Your task to perform on an android device: turn pop-ups off in chrome Image 0: 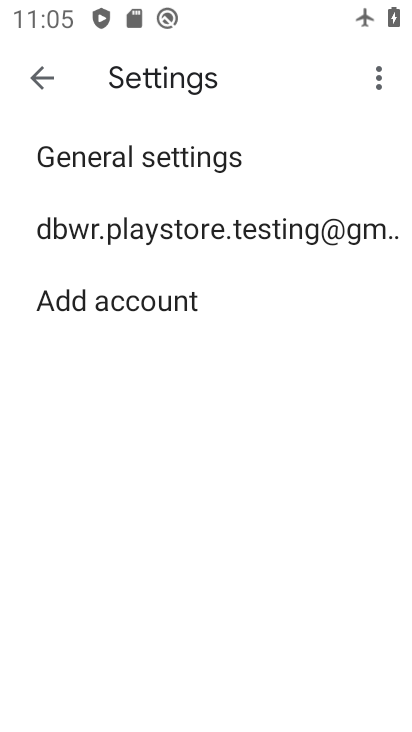
Step 0: press back button
Your task to perform on an android device: turn pop-ups off in chrome Image 1: 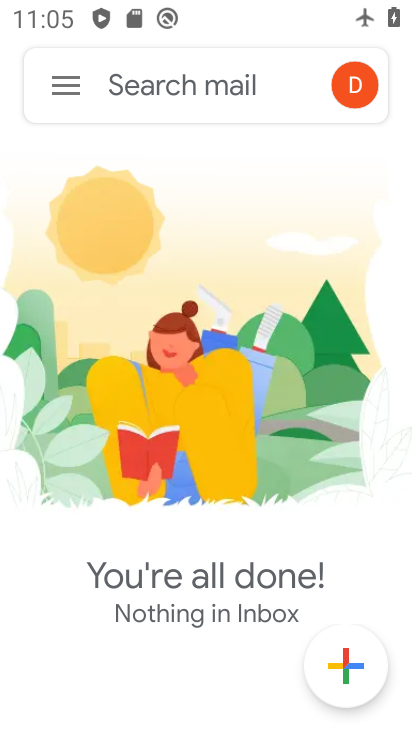
Step 1: press home button
Your task to perform on an android device: turn pop-ups off in chrome Image 2: 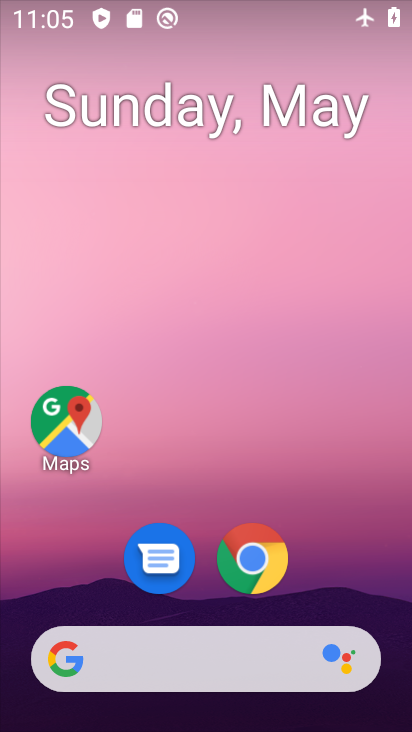
Step 2: drag from (385, 600) to (361, 130)
Your task to perform on an android device: turn pop-ups off in chrome Image 3: 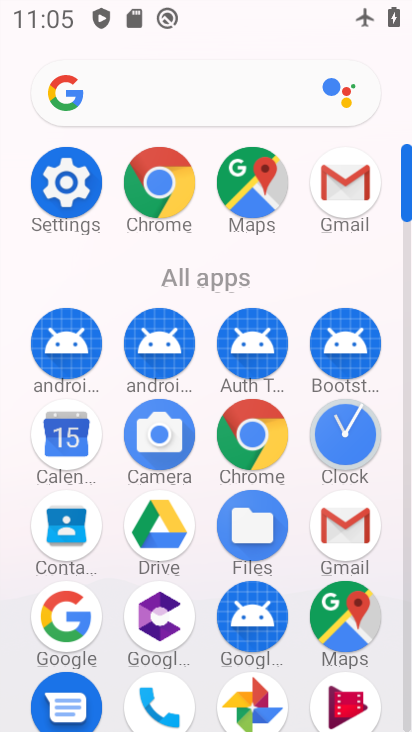
Step 3: click (155, 197)
Your task to perform on an android device: turn pop-ups off in chrome Image 4: 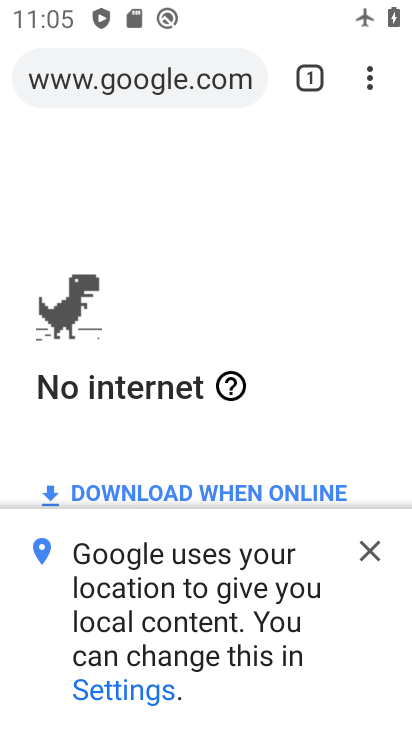
Step 4: click (369, 85)
Your task to perform on an android device: turn pop-ups off in chrome Image 5: 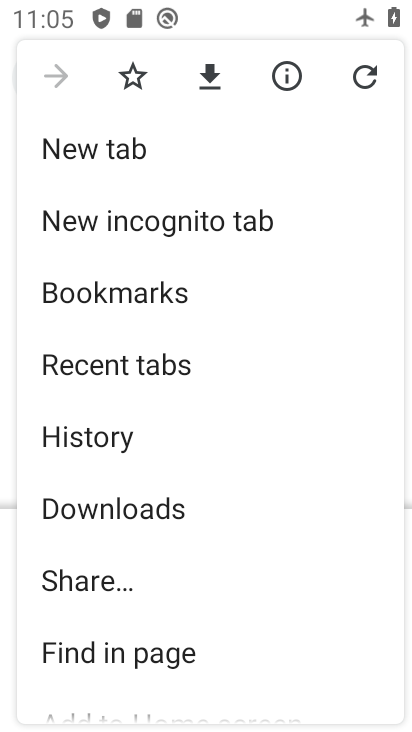
Step 5: drag from (344, 588) to (347, 478)
Your task to perform on an android device: turn pop-ups off in chrome Image 6: 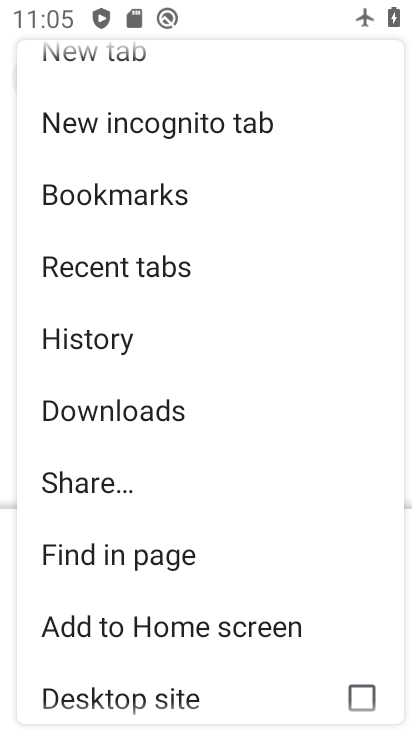
Step 6: drag from (347, 606) to (344, 427)
Your task to perform on an android device: turn pop-ups off in chrome Image 7: 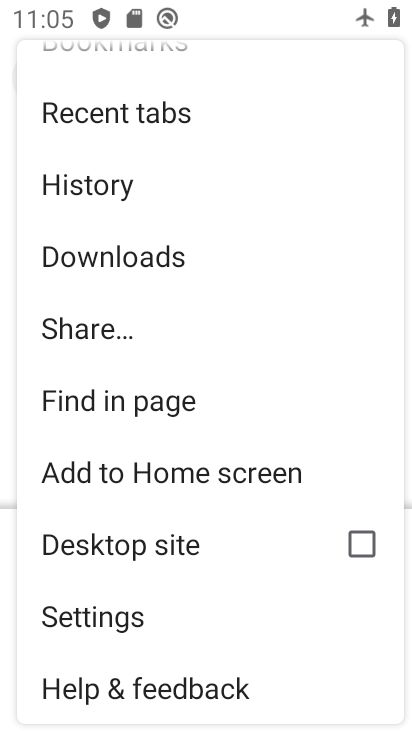
Step 7: drag from (294, 636) to (317, 429)
Your task to perform on an android device: turn pop-ups off in chrome Image 8: 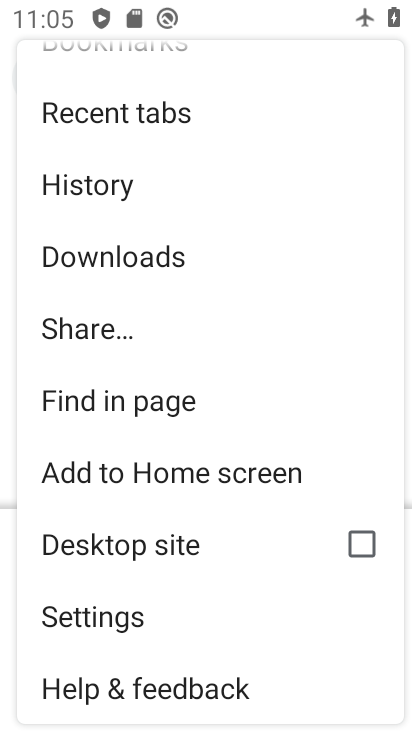
Step 8: click (138, 623)
Your task to perform on an android device: turn pop-ups off in chrome Image 9: 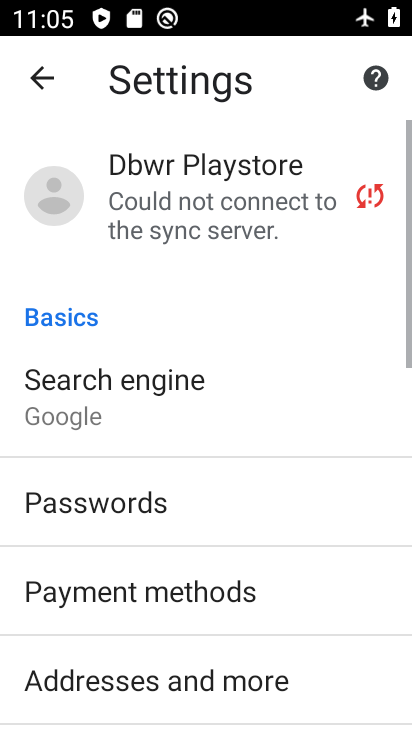
Step 9: drag from (310, 637) to (334, 502)
Your task to perform on an android device: turn pop-ups off in chrome Image 10: 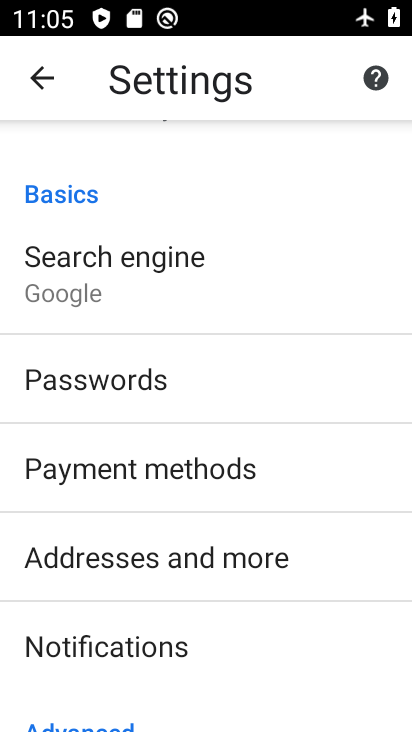
Step 10: drag from (340, 667) to (359, 539)
Your task to perform on an android device: turn pop-ups off in chrome Image 11: 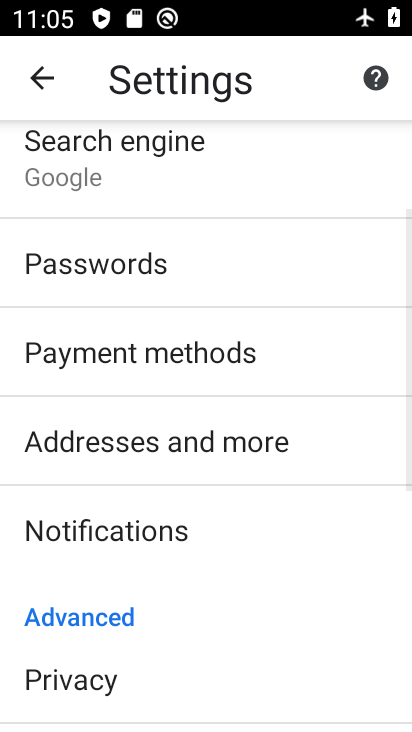
Step 11: drag from (340, 663) to (348, 466)
Your task to perform on an android device: turn pop-ups off in chrome Image 12: 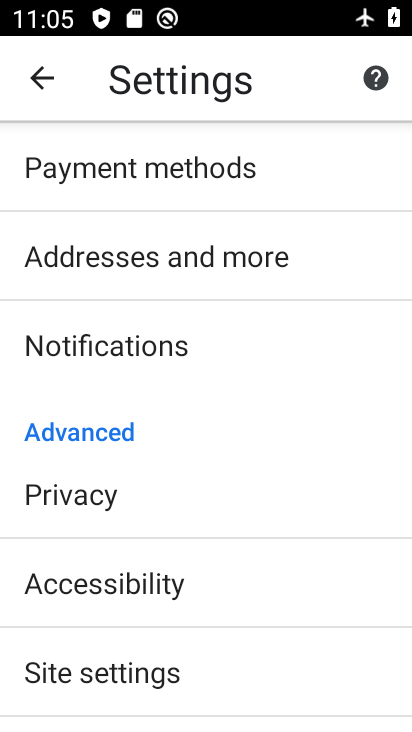
Step 12: drag from (343, 652) to (346, 501)
Your task to perform on an android device: turn pop-ups off in chrome Image 13: 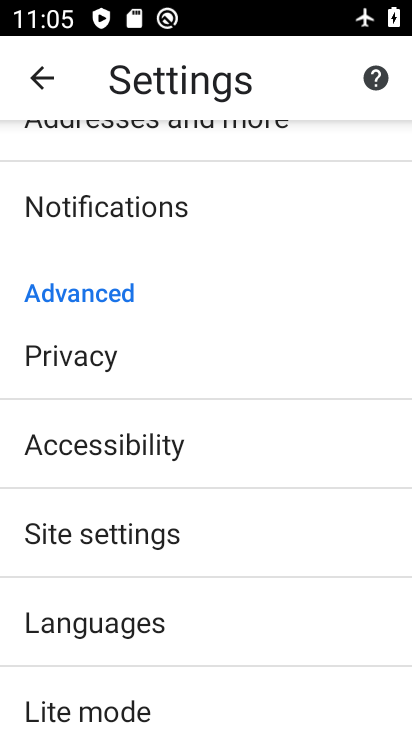
Step 13: drag from (320, 662) to (320, 528)
Your task to perform on an android device: turn pop-ups off in chrome Image 14: 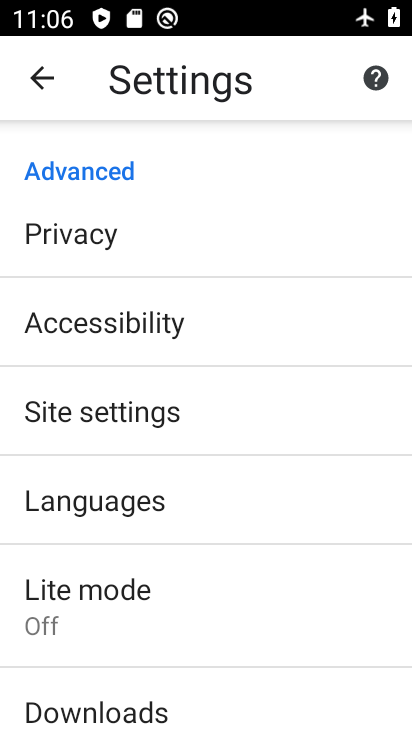
Step 14: drag from (310, 680) to (312, 559)
Your task to perform on an android device: turn pop-ups off in chrome Image 15: 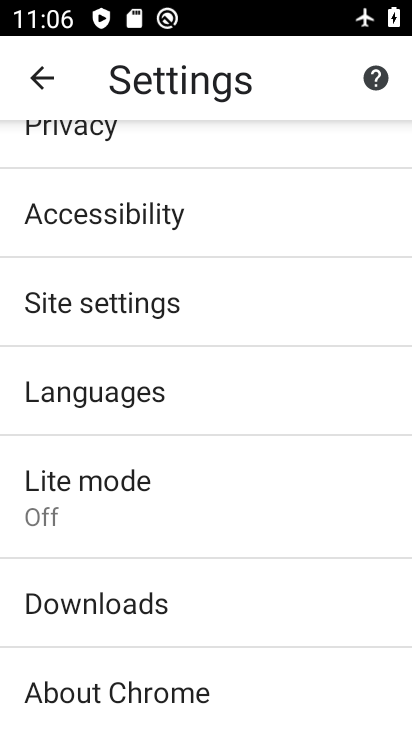
Step 15: click (251, 296)
Your task to perform on an android device: turn pop-ups off in chrome Image 16: 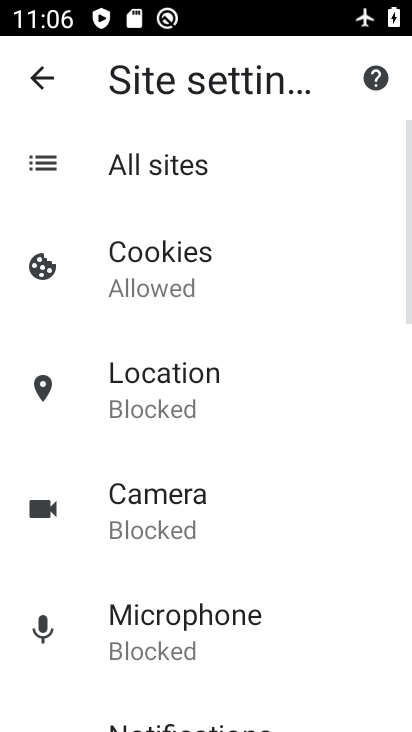
Step 16: drag from (319, 634) to (330, 488)
Your task to perform on an android device: turn pop-ups off in chrome Image 17: 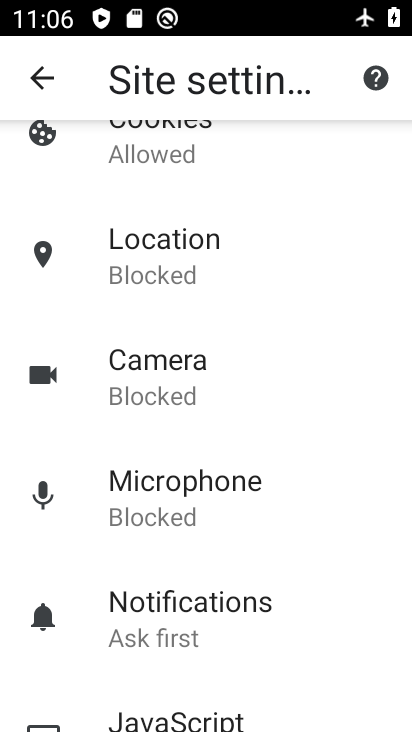
Step 17: drag from (329, 668) to (318, 526)
Your task to perform on an android device: turn pop-ups off in chrome Image 18: 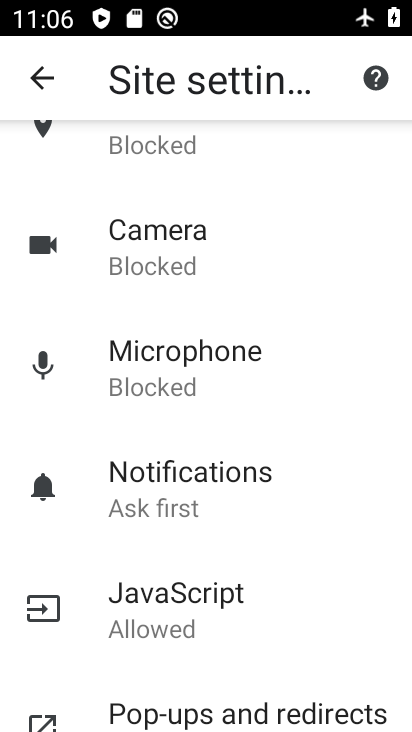
Step 18: drag from (311, 636) to (309, 491)
Your task to perform on an android device: turn pop-ups off in chrome Image 19: 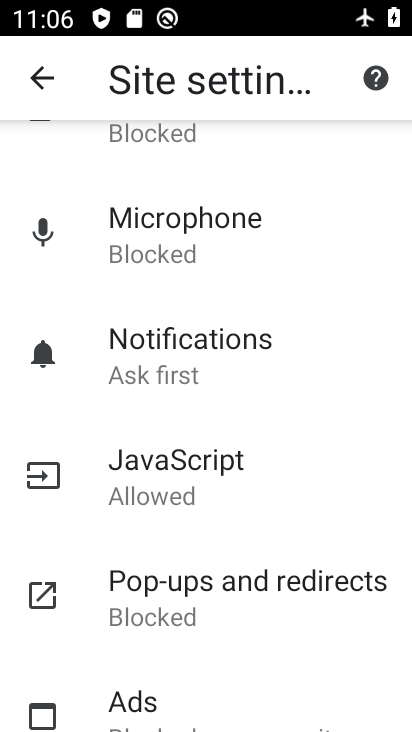
Step 19: drag from (310, 686) to (315, 520)
Your task to perform on an android device: turn pop-ups off in chrome Image 20: 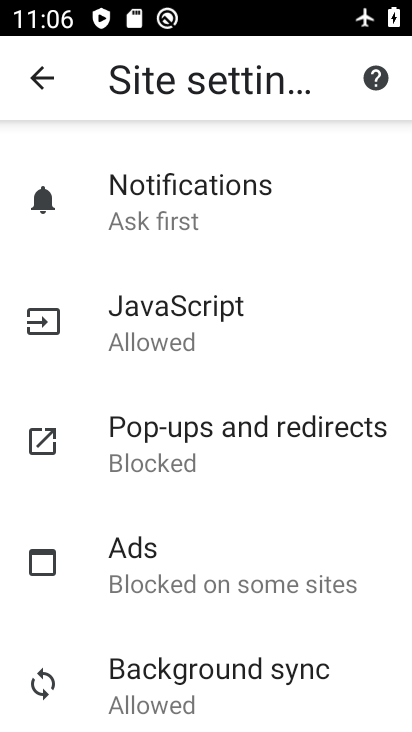
Step 20: click (280, 429)
Your task to perform on an android device: turn pop-ups off in chrome Image 21: 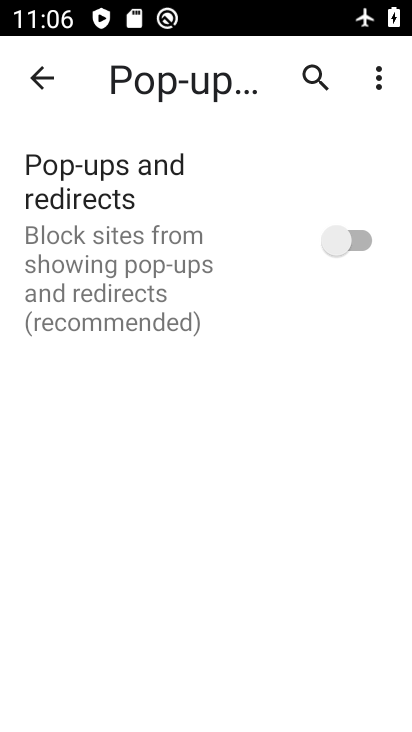
Step 21: task complete